Your task to perform on an android device: turn on notifications settings in the gmail app Image 0: 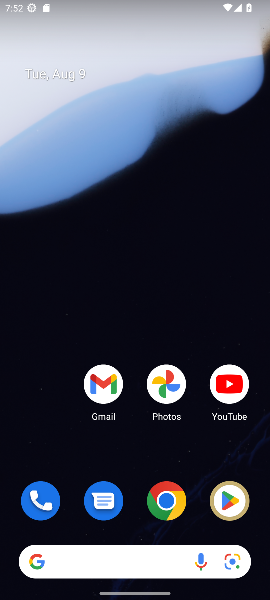
Step 0: press home button
Your task to perform on an android device: turn on notifications settings in the gmail app Image 1: 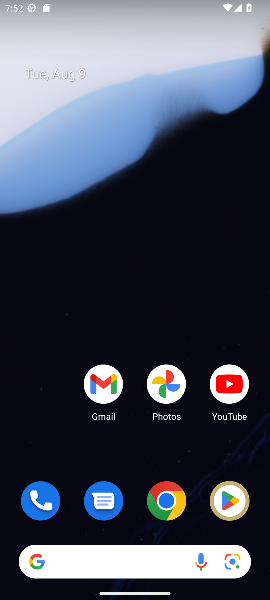
Step 1: click (104, 388)
Your task to perform on an android device: turn on notifications settings in the gmail app Image 2: 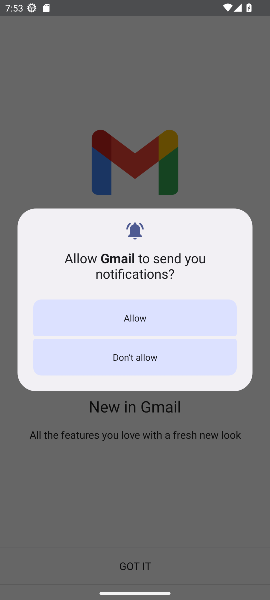
Step 2: click (178, 318)
Your task to perform on an android device: turn on notifications settings in the gmail app Image 3: 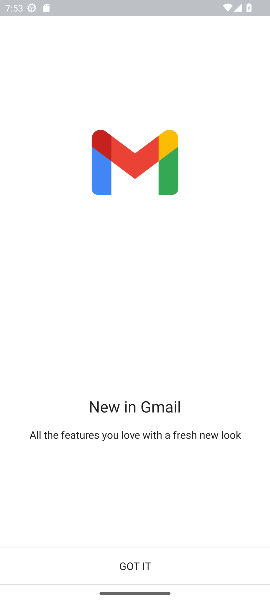
Step 3: click (127, 560)
Your task to perform on an android device: turn on notifications settings in the gmail app Image 4: 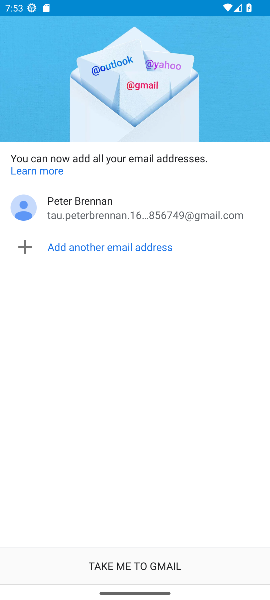
Step 4: click (127, 560)
Your task to perform on an android device: turn on notifications settings in the gmail app Image 5: 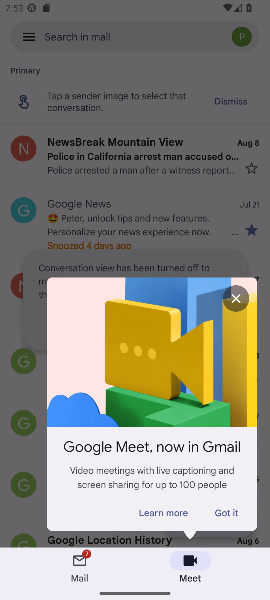
Step 5: click (238, 294)
Your task to perform on an android device: turn on notifications settings in the gmail app Image 6: 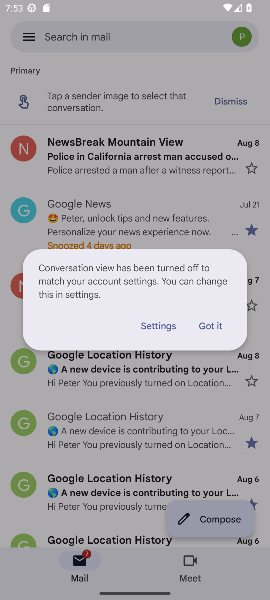
Step 6: click (216, 323)
Your task to perform on an android device: turn on notifications settings in the gmail app Image 7: 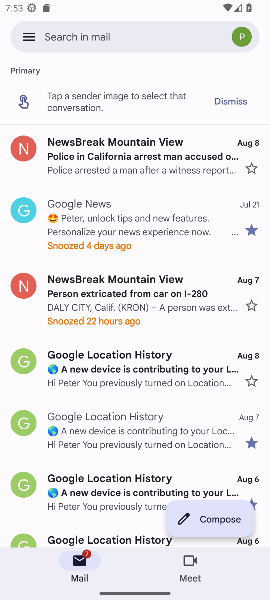
Step 7: click (28, 37)
Your task to perform on an android device: turn on notifications settings in the gmail app Image 8: 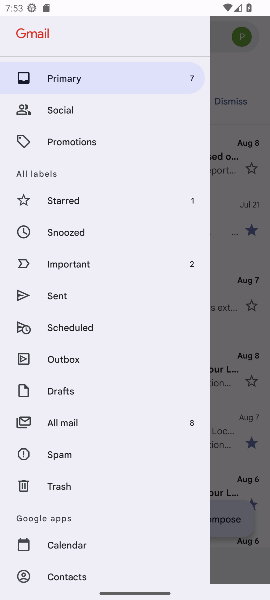
Step 8: drag from (95, 550) to (97, 304)
Your task to perform on an android device: turn on notifications settings in the gmail app Image 9: 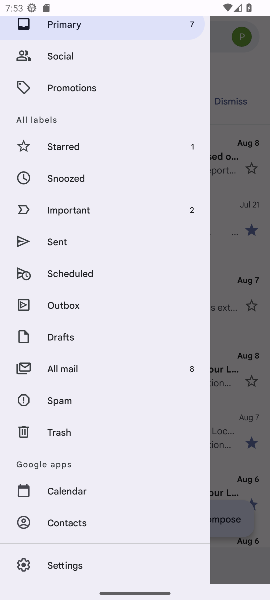
Step 9: click (50, 559)
Your task to perform on an android device: turn on notifications settings in the gmail app Image 10: 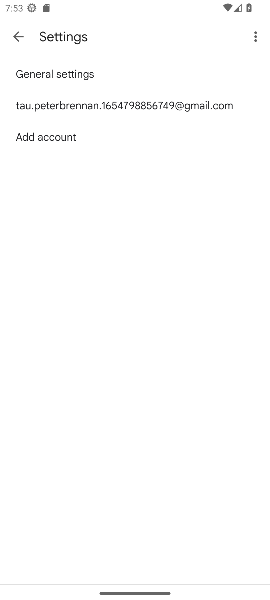
Step 10: click (199, 103)
Your task to perform on an android device: turn on notifications settings in the gmail app Image 11: 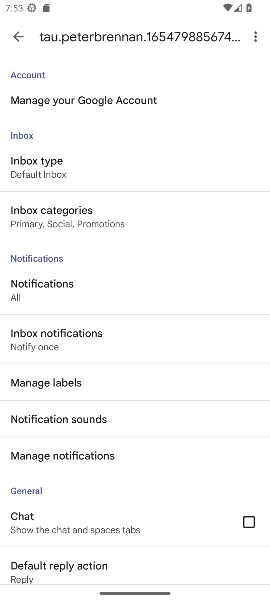
Step 11: click (64, 452)
Your task to perform on an android device: turn on notifications settings in the gmail app Image 12: 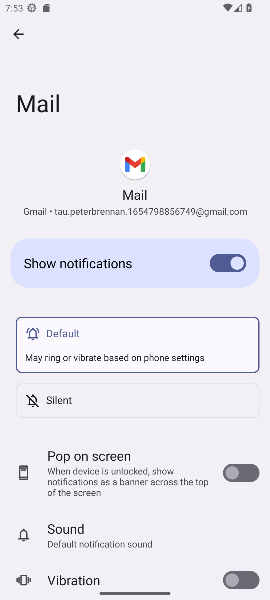
Step 12: task complete